Your task to perform on an android device: see creations saved in the google photos Image 0: 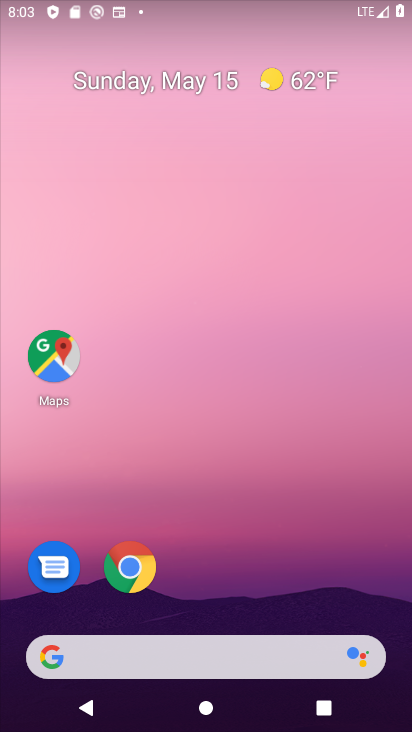
Step 0: drag from (253, 599) to (322, 107)
Your task to perform on an android device: see creations saved in the google photos Image 1: 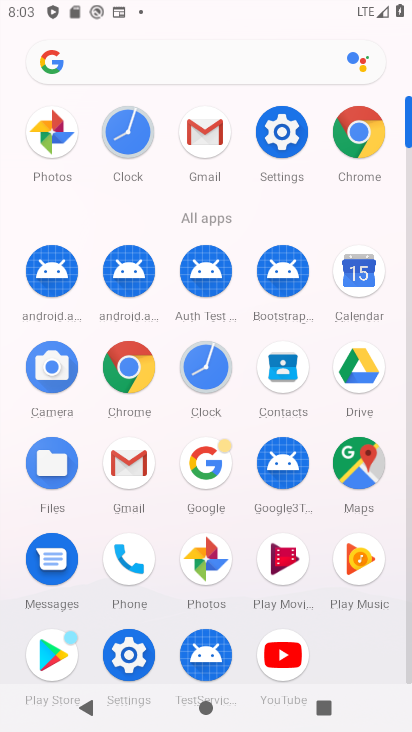
Step 1: click (202, 567)
Your task to perform on an android device: see creations saved in the google photos Image 2: 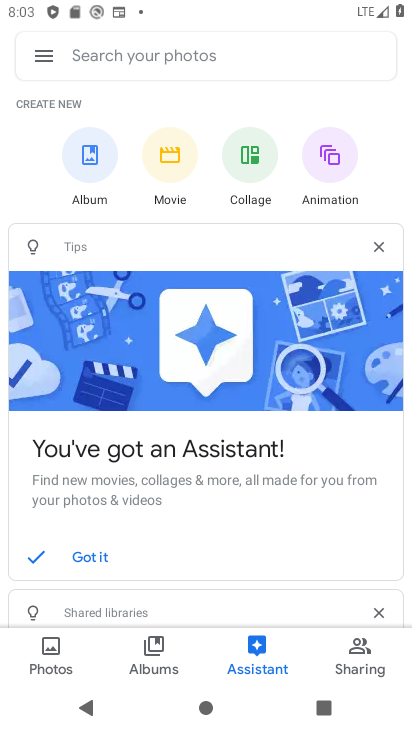
Step 2: click (39, 54)
Your task to perform on an android device: see creations saved in the google photos Image 3: 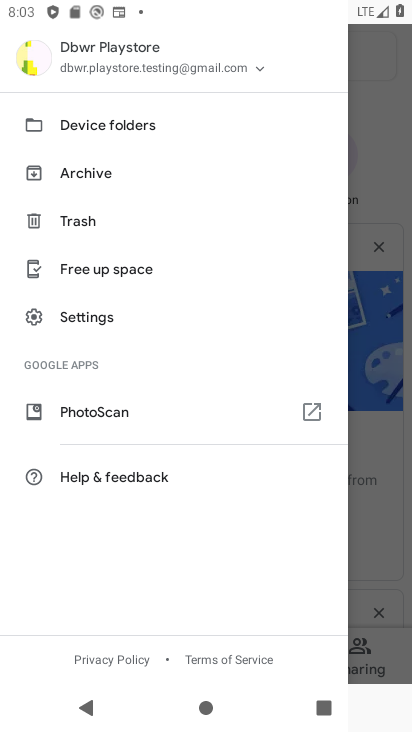
Step 3: click (94, 173)
Your task to perform on an android device: see creations saved in the google photos Image 4: 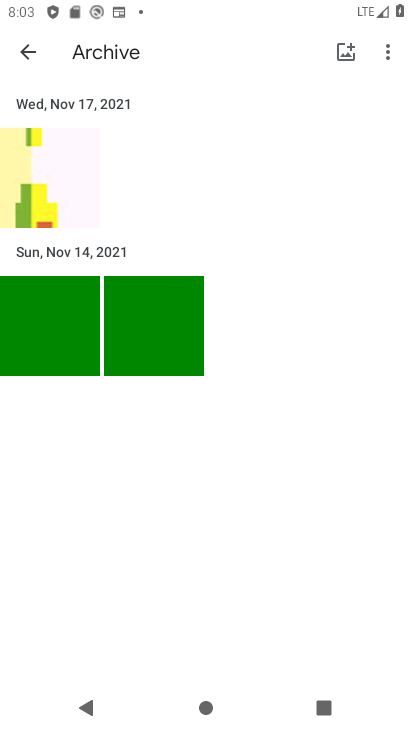
Step 4: task complete